Your task to perform on an android device: open a bookmark in the chrome app Image 0: 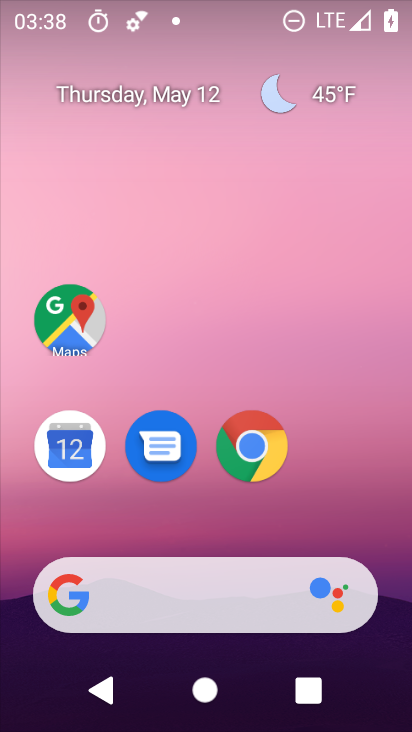
Step 0: click (222, 470)
Your task to perform on an android device: open a bookmark in the chrome app Image 1: 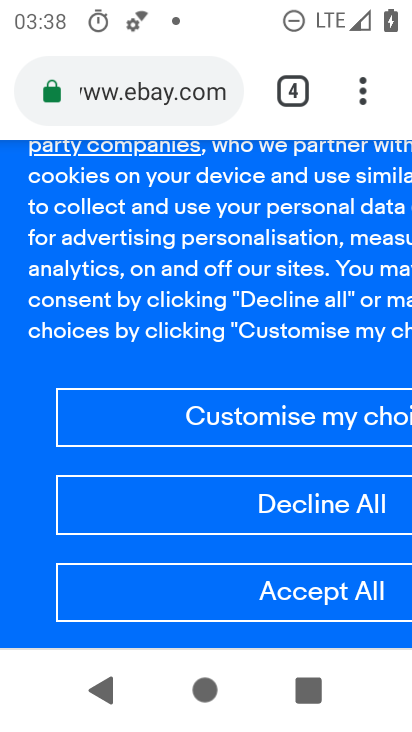
Step 1: task complete